Your task to perform on an android device: Show me popular videos on Youtube Image 0: 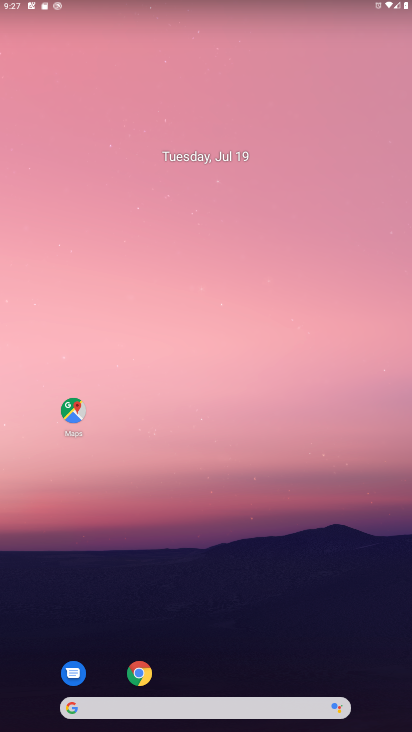
Step 0: drag from (364, 665) to (308, 206)
Your task to perform on an android device: Show me popular videos on Youtube Image 1: 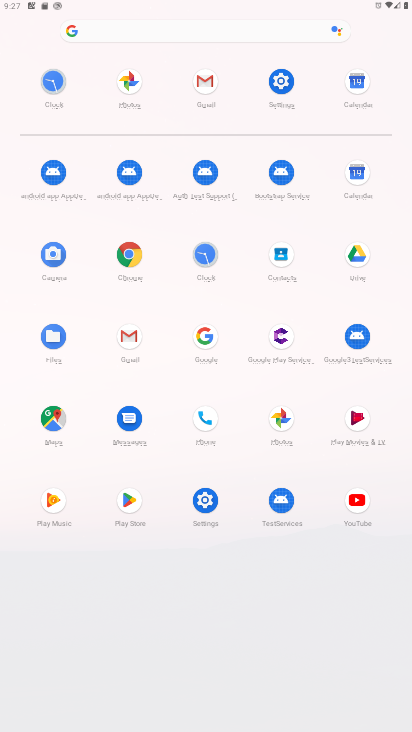
Step 1: click (357, 499)
Your task to perform on an android device: Show me popular videos on Youtube Image 2: 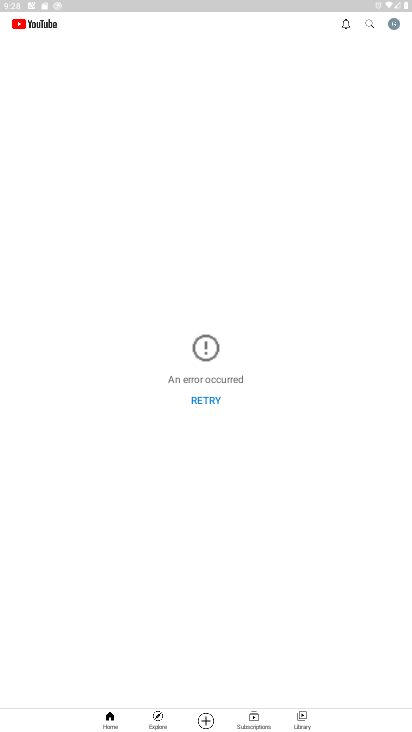
Step 2: click (209, 396)
Your task to perform on an android device: Show me popular videos on Youtube Image 3: 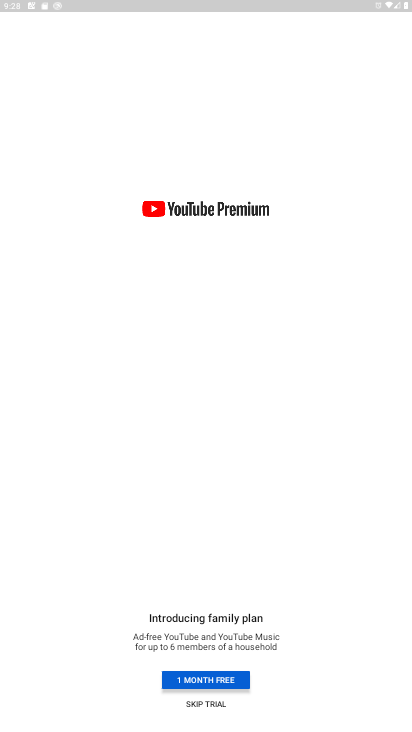
Step 3: click (198, 702)
Your task to perform on an android device: Show me popular videos on Youtube Image 4: 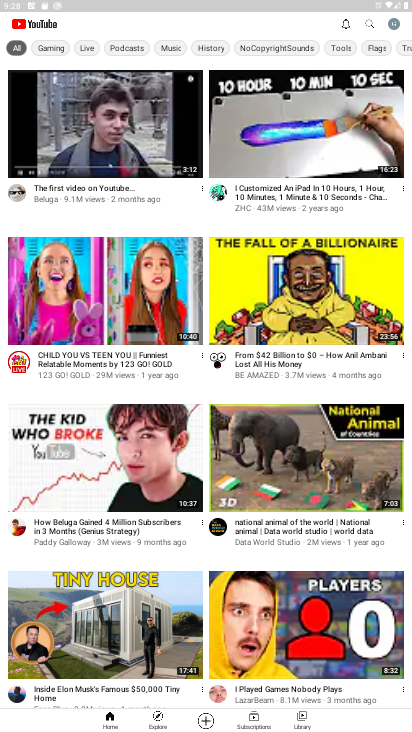
Step 4: drag from (49, 60) to (49, 253)
Your task to perform on an android device: Show me popular videos on Youtube Image 5: 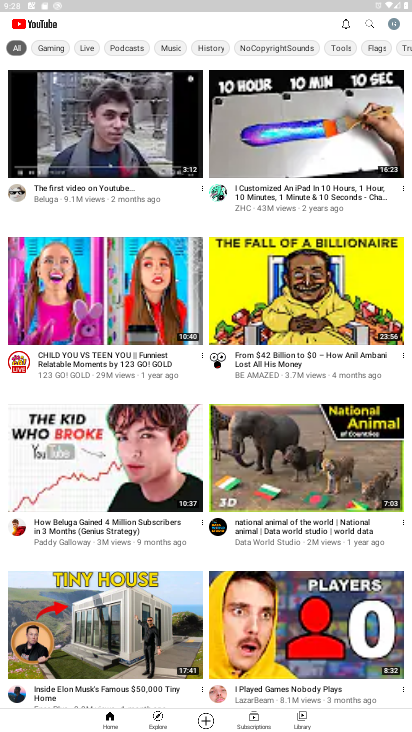
Step 5: click (19, 45)
Your task to perform on an android device: Show me popular videos on Youtube Image 6: 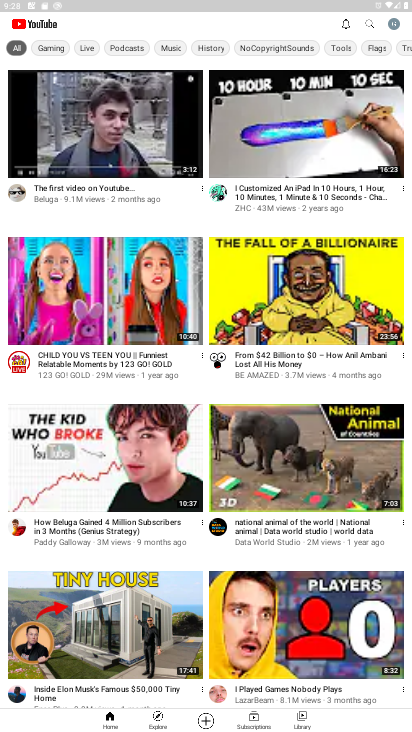
Step 6: task complete